Your task to perform on an android device: add a contact Image 0: 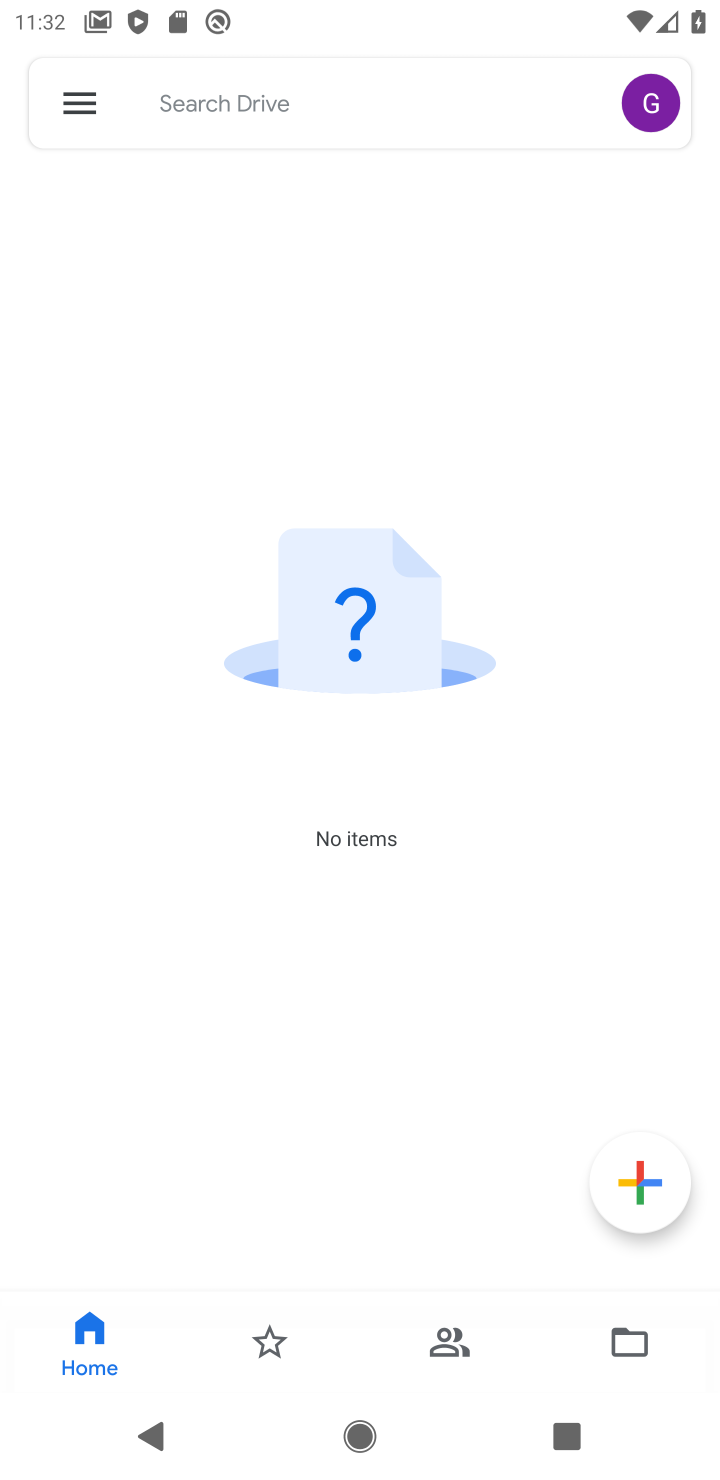
Step 0: press home button
Your task to perform on an android device: add a contact Image 1: 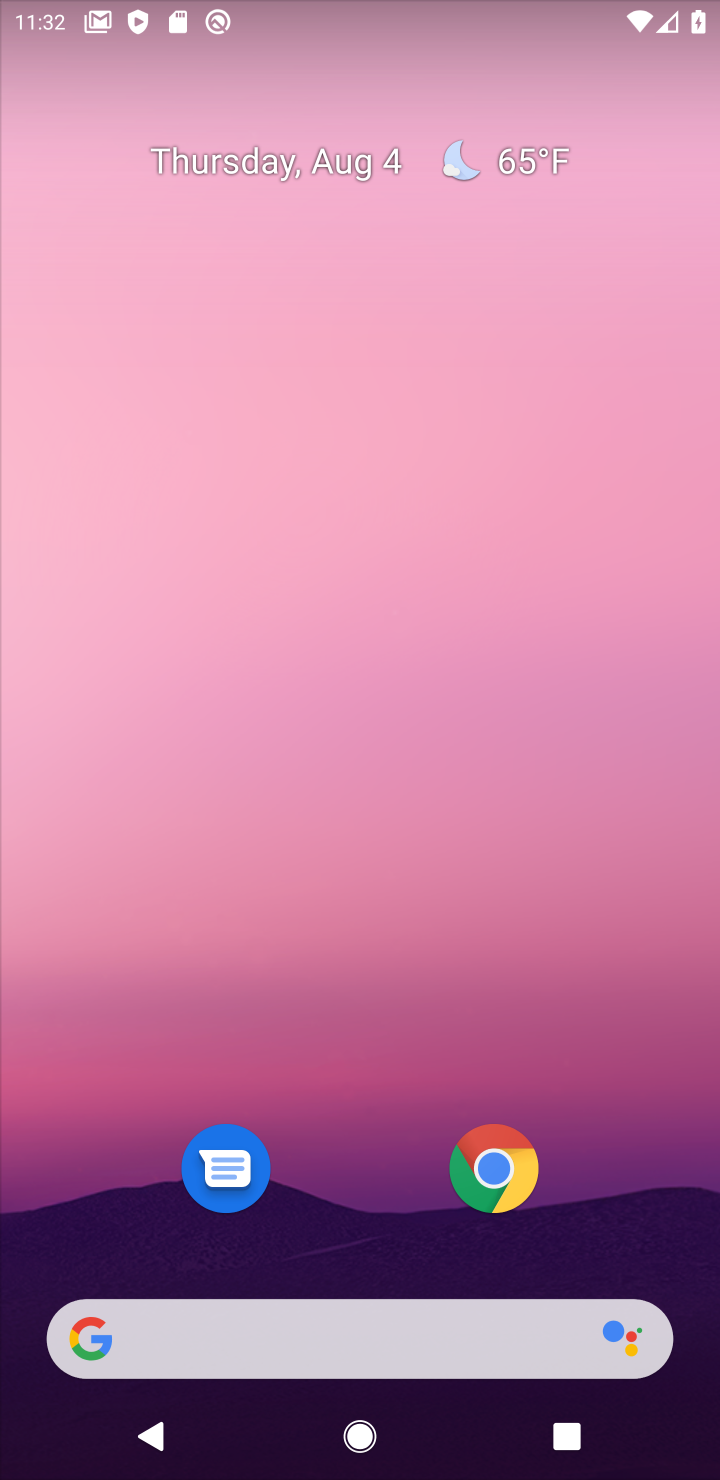
Step 1: click (439, 45)
Your task to perform on an android device: add a contact Image 2: 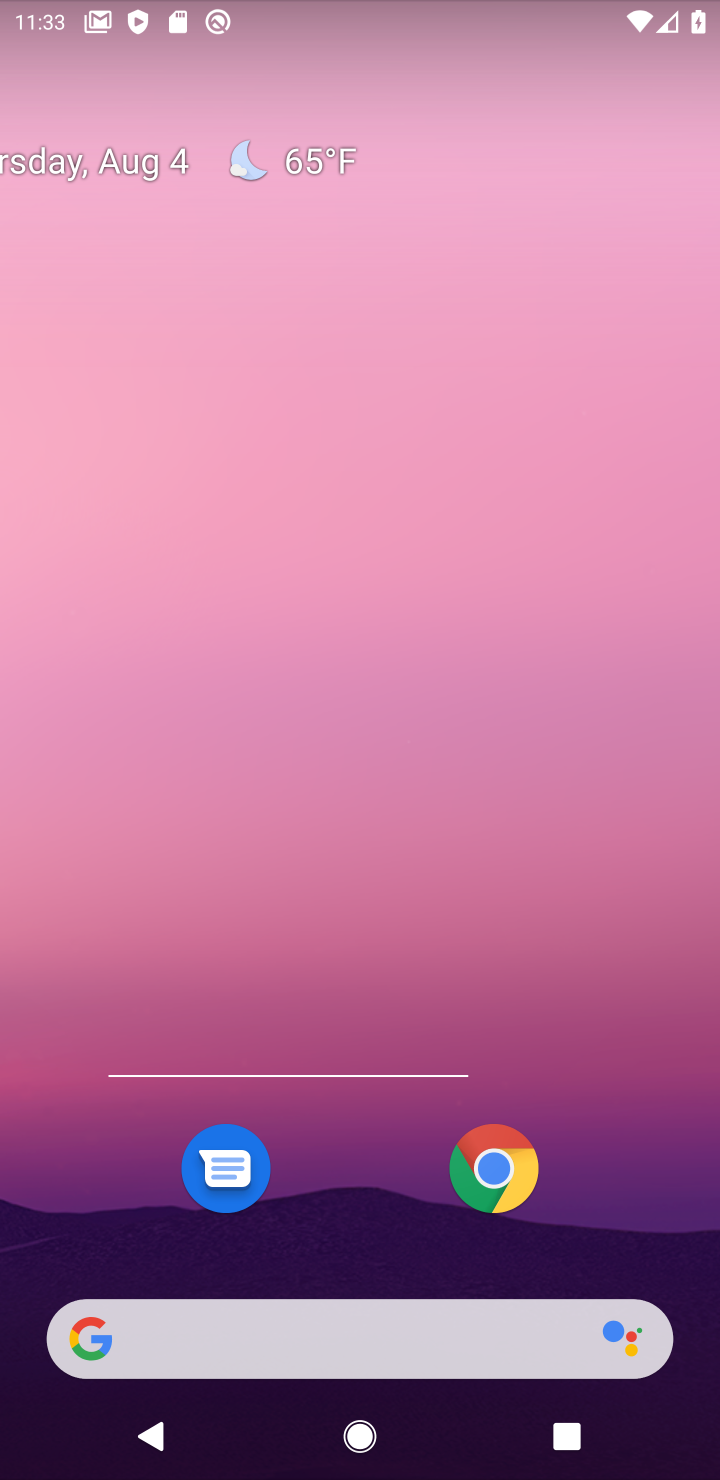
Step 2: drag from (332, 1237) to (506, 22)
Your task to perform on an android device: add a contact Image 3: 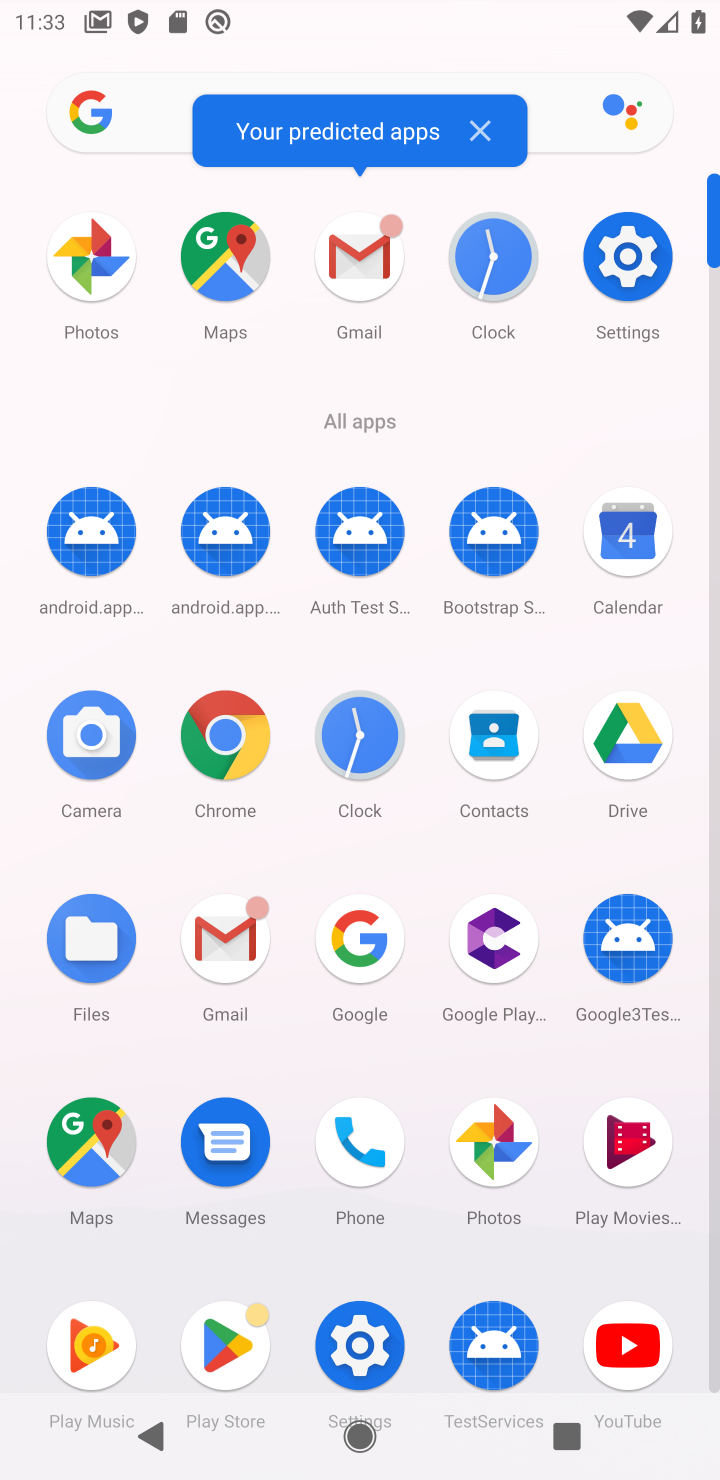
Step 3: click (491, 767)
Your task to perform on an android device: add a contact Image 4: 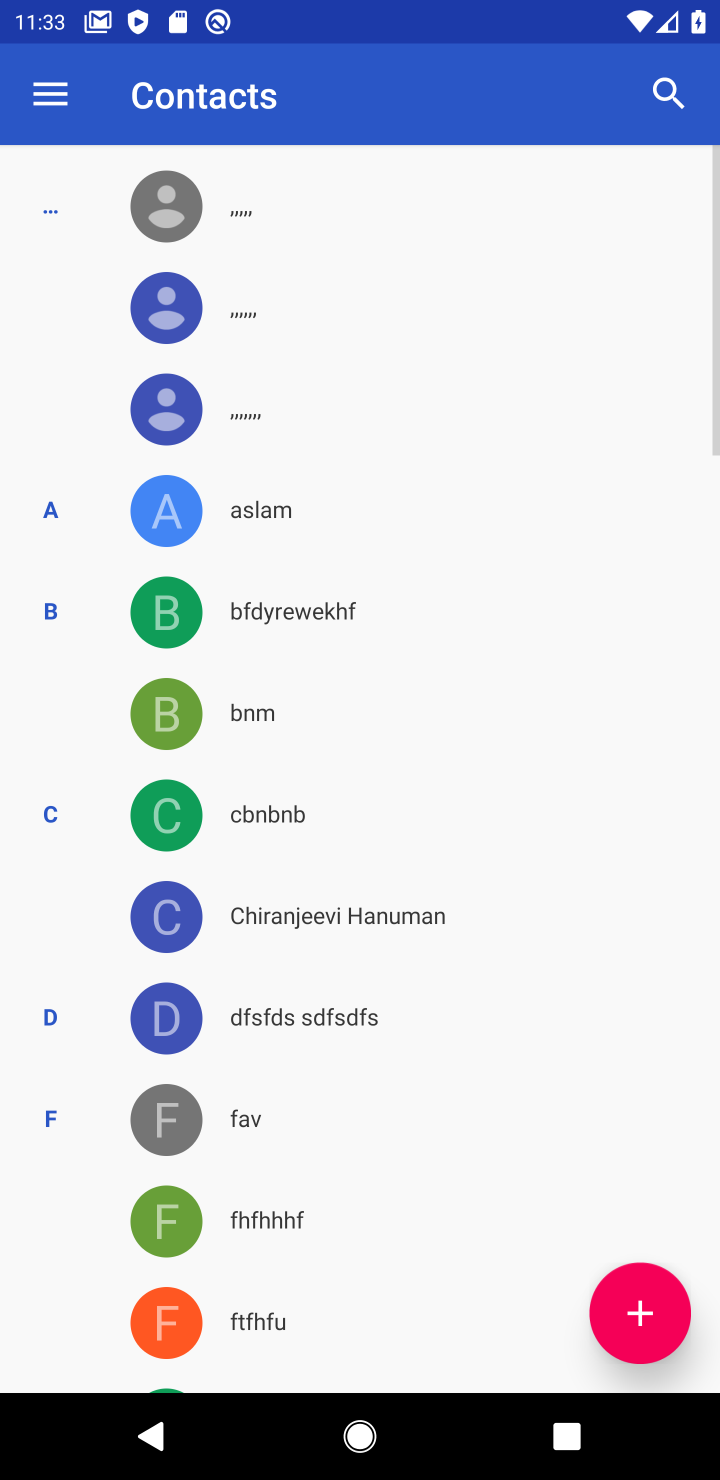
Step 4: click (642, 1327)
Your task to perform on an android device: add a contact Image 5: 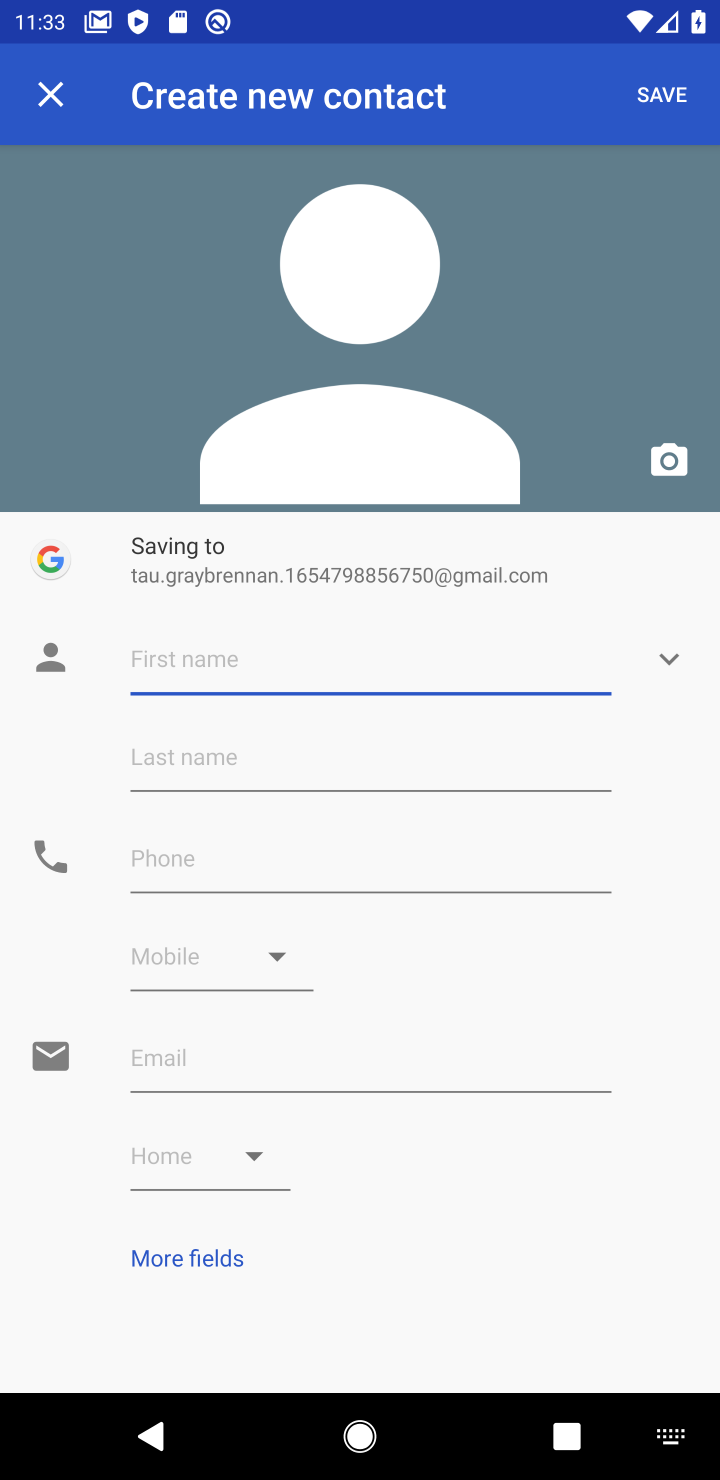
Step 5: type "waqab"
Your task to perform on an android device: add a contact Image 6: 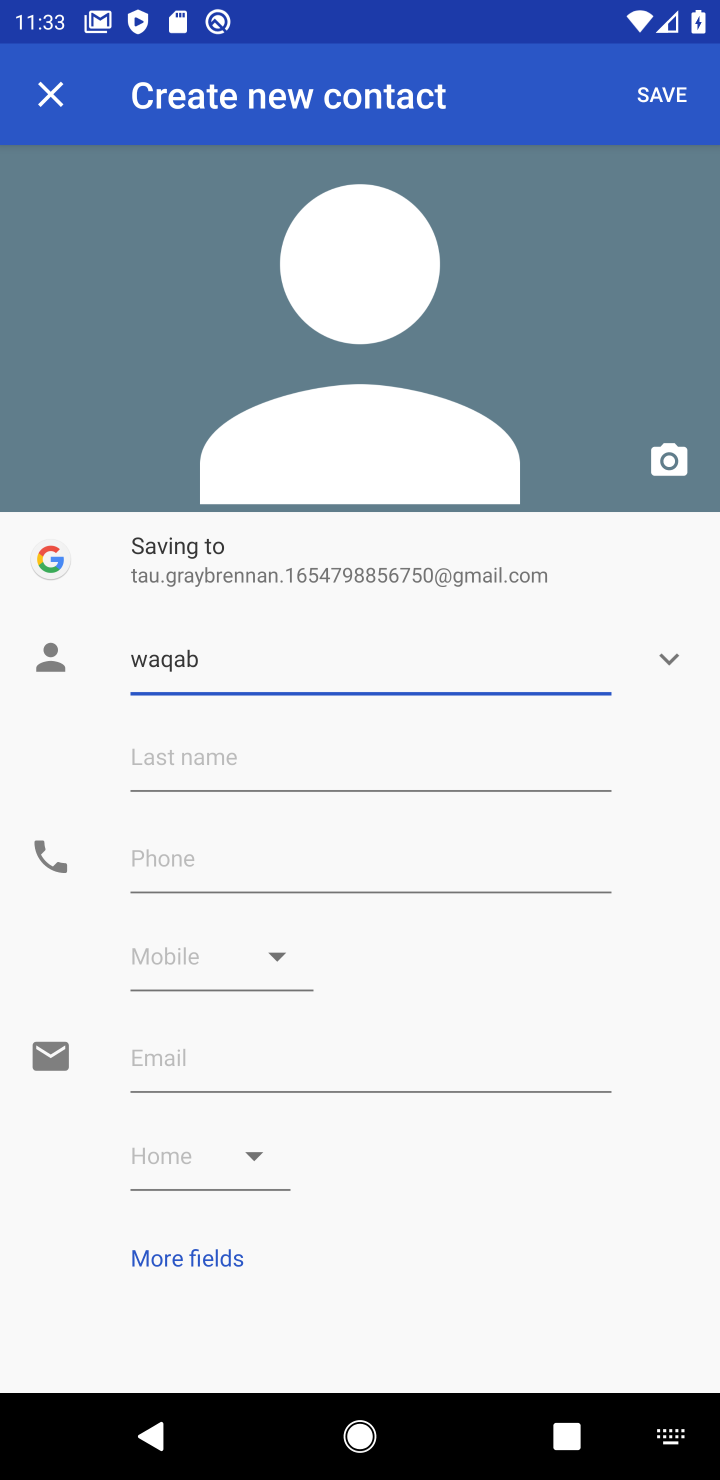
Step 6: click (671, 98)
Your task to perform on an android device: add a contact Image 7: 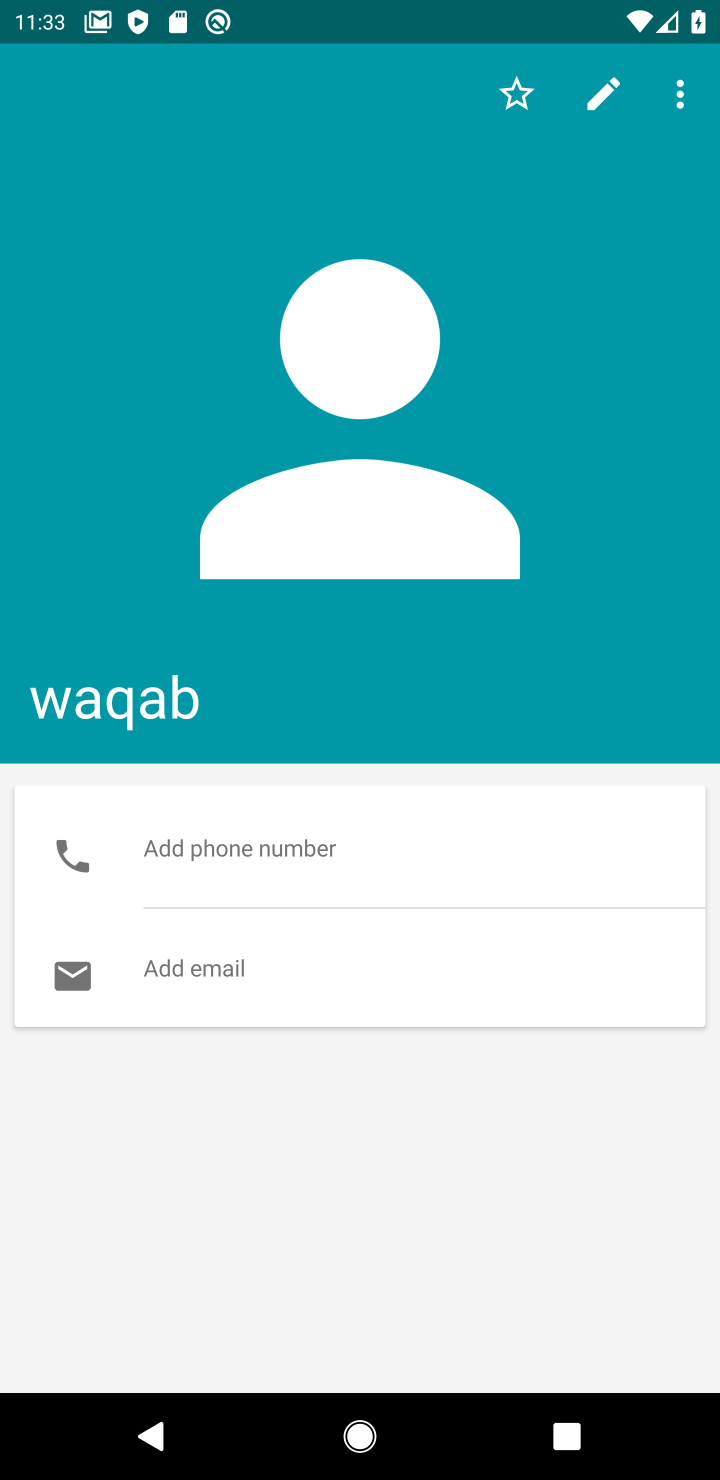
Step 7: task complete